Your task to perform on an android device: Open Wikipedia Image 0: 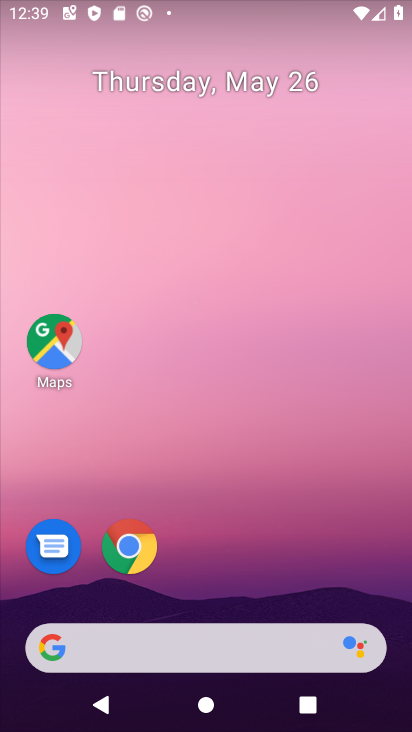
Step 0: click (152, 568)
Your task to perform on an android device: Open Wikipedia Image 1: 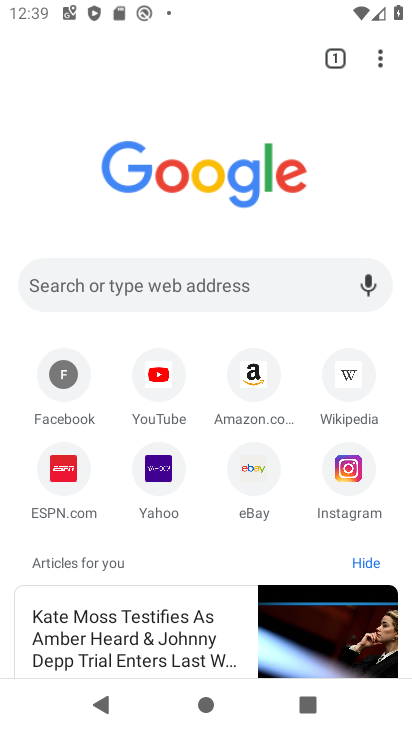
Step 1: click (348, 376)
Your task to perform on an android device: Open Wikipedia Image 2: 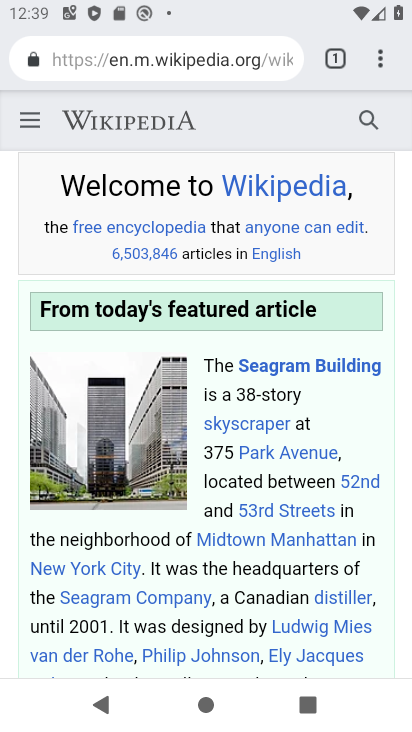
Step 2: task complete